Your task to perform on an android device: turn smart compose on in the gmail app Image 0: 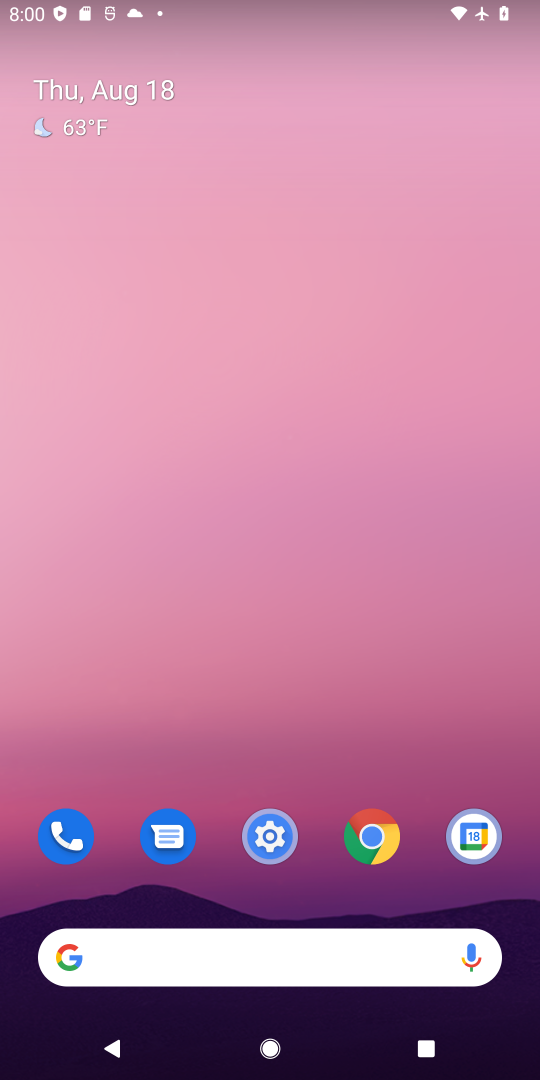
Step 0: drag from (311, 882) to (285, 1)
Your task to perform on an android device: turn smart compose on in the gmail app Image 1: 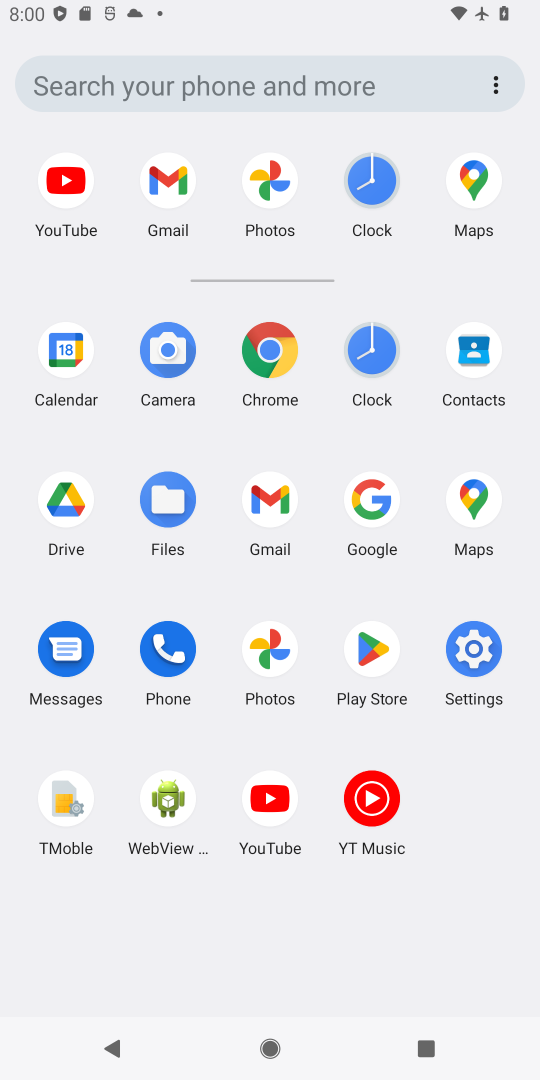
Step 1: click (255, 508)
Your task to perform on an android device: turn smart compose on in the gmail app Image 2: 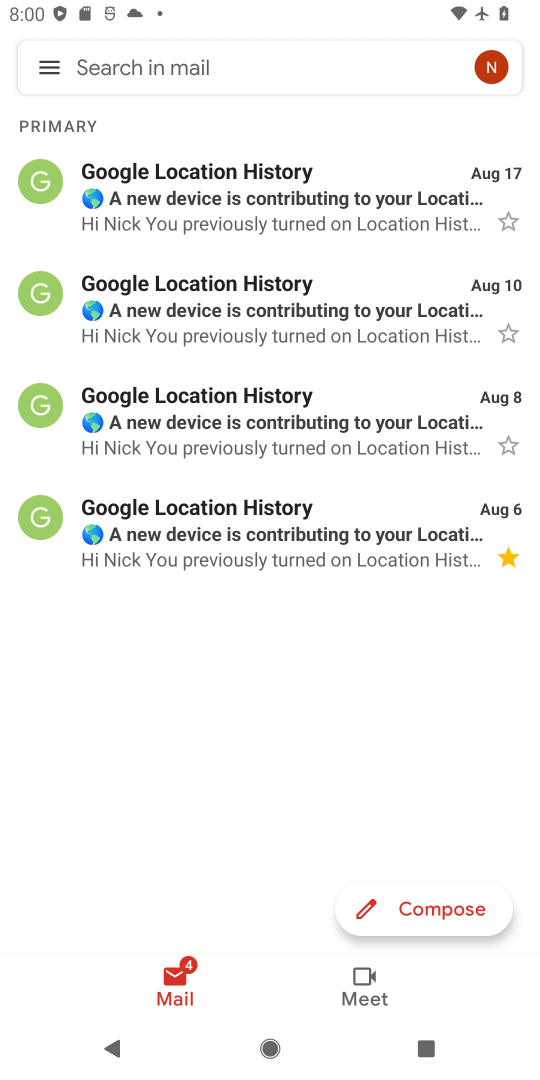
Step 2: click (43, 68)
Your task to perform on an android device: turn smart compose on in the gmail app Image 3: 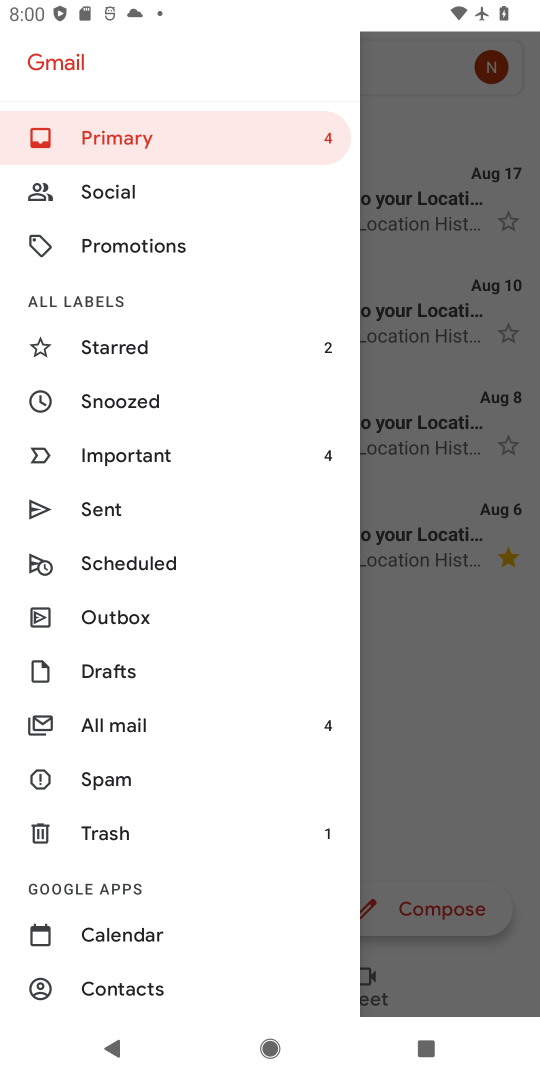
Step 3: drag from (173, 936) to (222, 333)
Your task to perform on an android device: turn smart compose on in the gmail app Image 4: 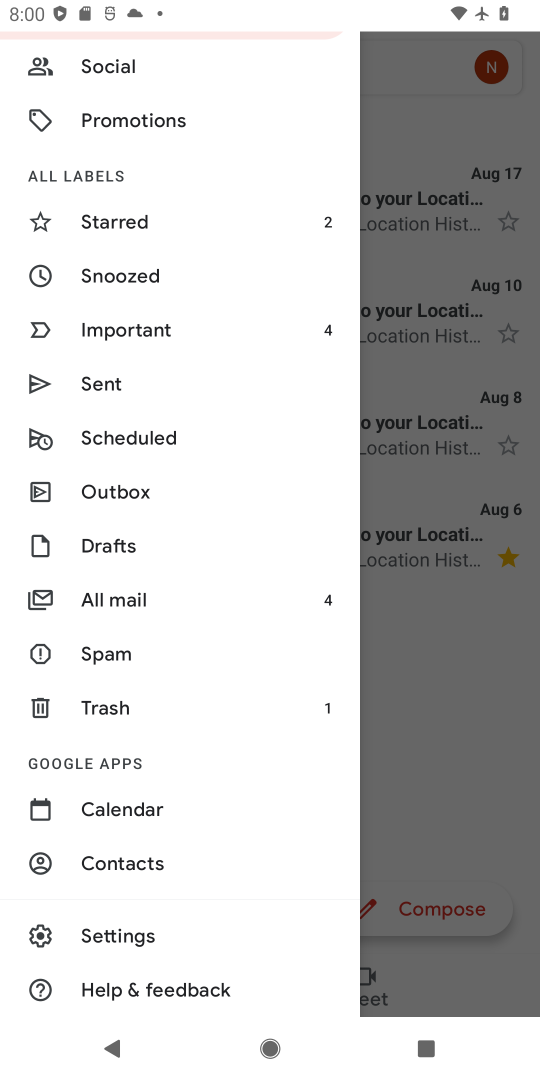
Step 4: click (128, 948)
Your task to perform on an android device: turn smart compose on in the gmail app Image 5: 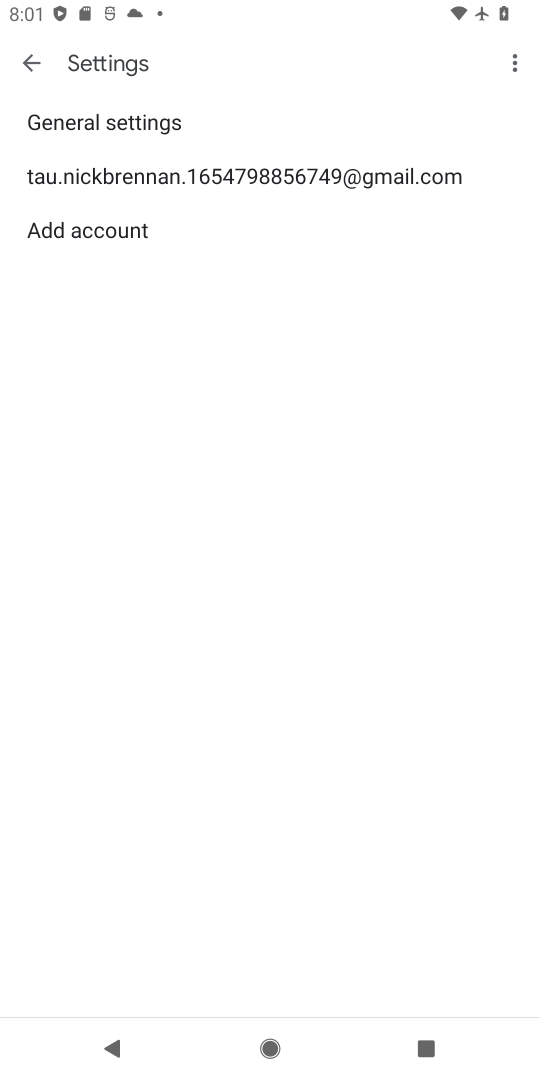
Step 5: click (321, 175)
Your task to perform on an android device: turn smart compose on in the gmail app Image 6: 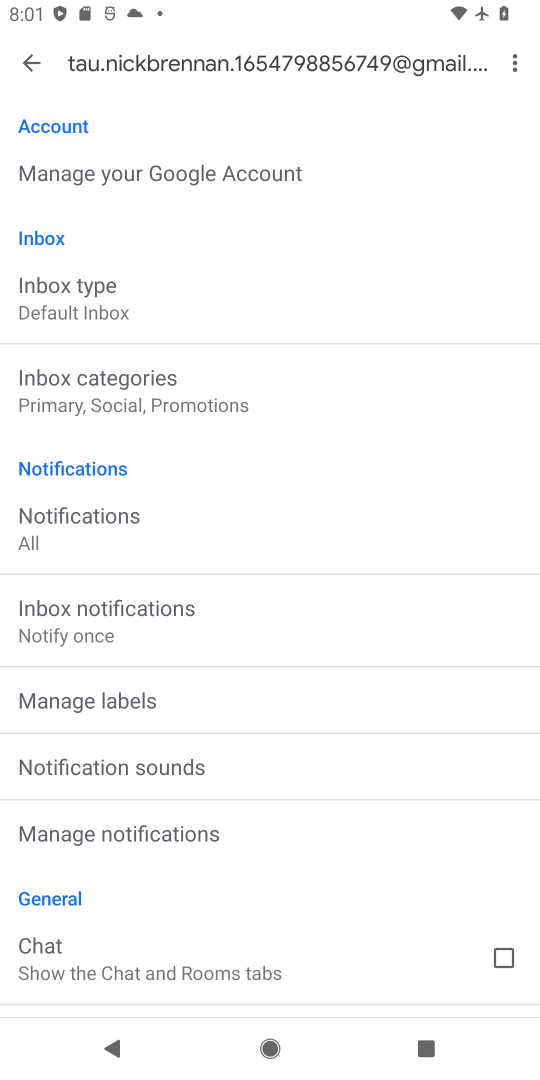
Step 6: task complete